Your task to perform on an android device: turn on sleep mode Image 0: 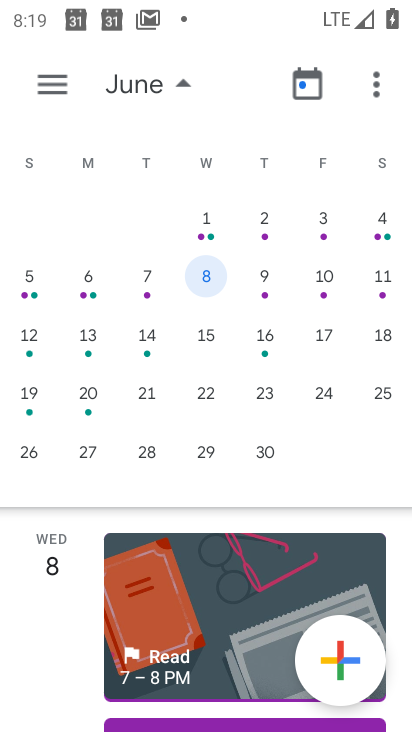
Step 0: press home button
Your task to perform on an android device: turn on sleep mode Image 1: 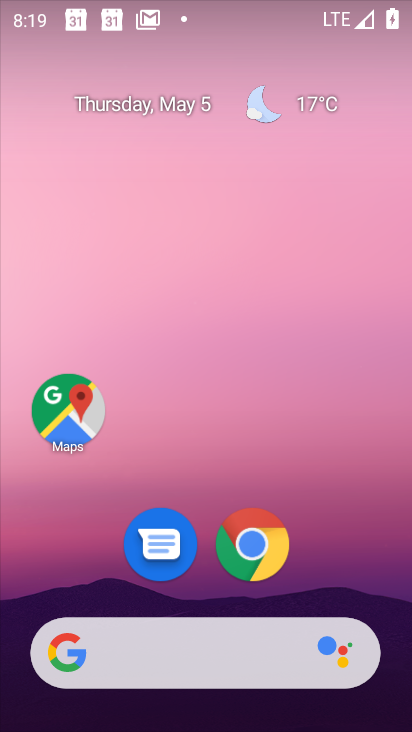
Step 1: drag from (348, 564) to (334, 195)
Your task to perform on an android device: turn on sleep mode Image 2: 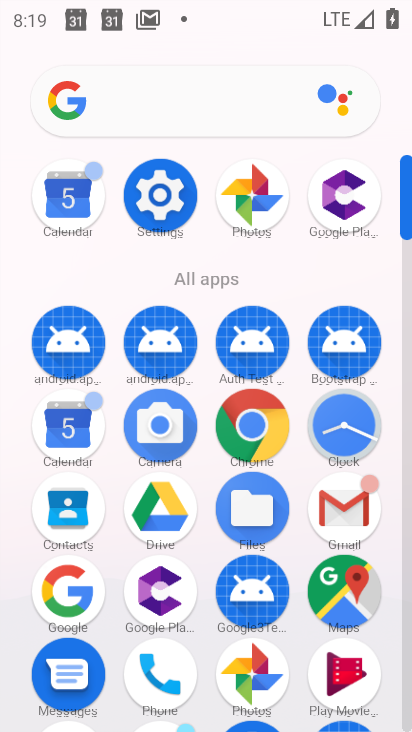
Step 2: click (141, 225)
Your task to perform on an android device: turn on sleep mode Image 3: 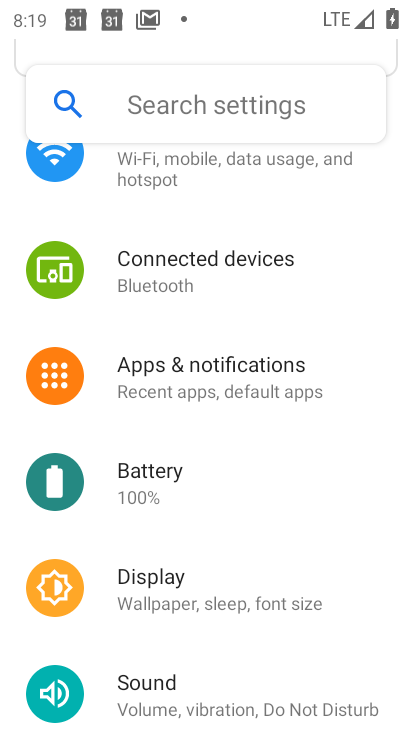
Step 3: click (186, 678)
Your task to perform on an android device: turn on sleep mode Image 4: 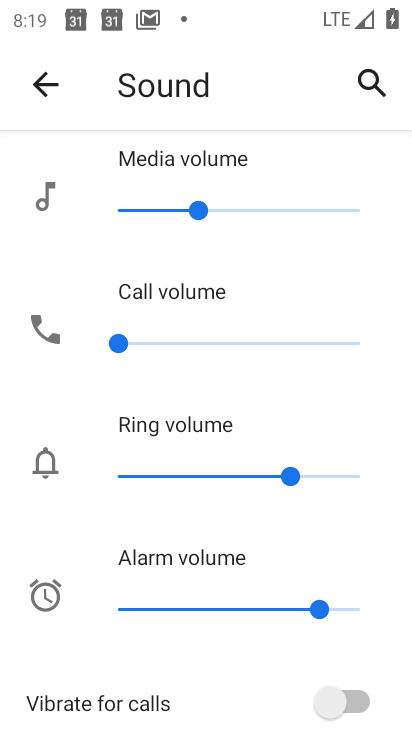
Step 4: drag from (196, 604) to (262, 214)
Your task to perform on an android device: turn on sleep mode Image 5: 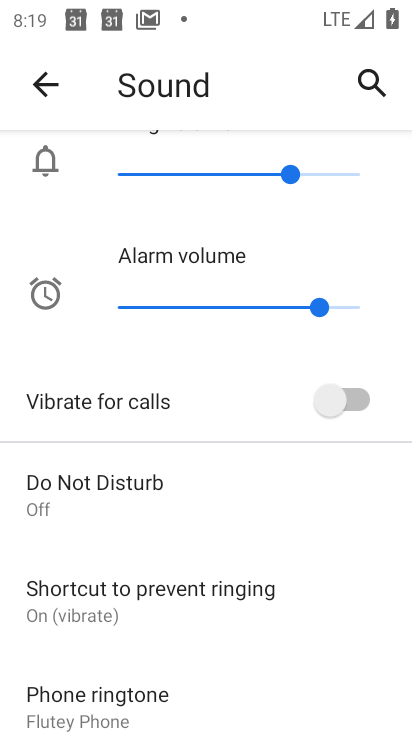
Step 5: drag from (150, 622) to (171, 393)
Your task to perform on an android device: turn on sleep mode Image 6: 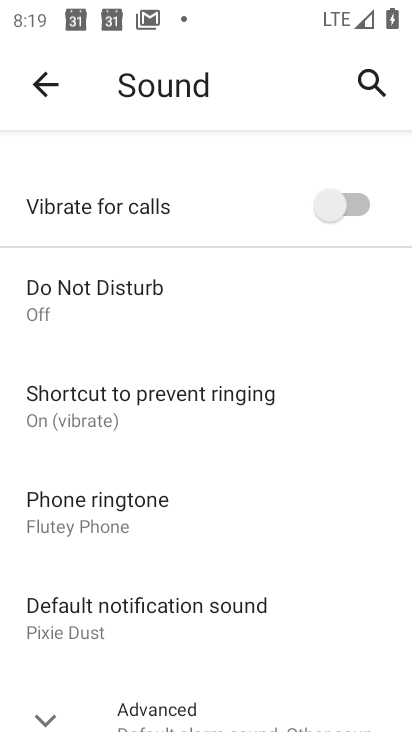
Step 6: drag from (157, 558) to (175, 439)
Your task to perform on an android device: turn on sleep mode Image 7: 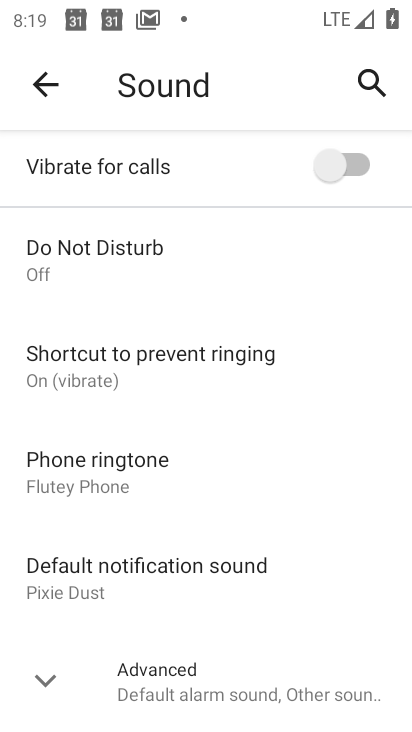
Step 7: click (91, 669)
Your task to perform on an android device: turn on sleep mode Image 8: 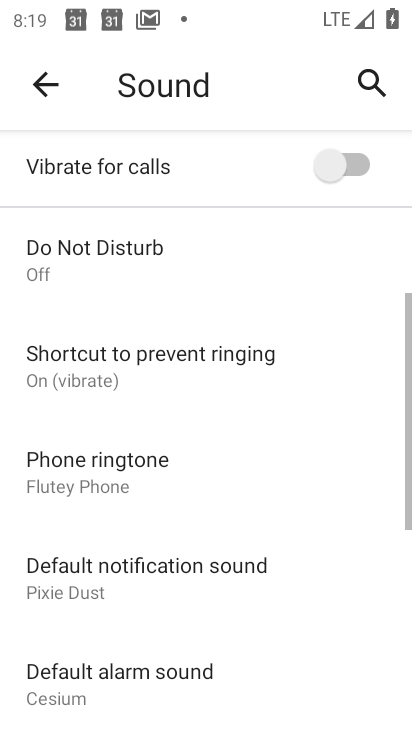
Step 8: drag from (131, 615) to (150, 499)
Your task to perform on an android device: turn on sleep mode Image 9: 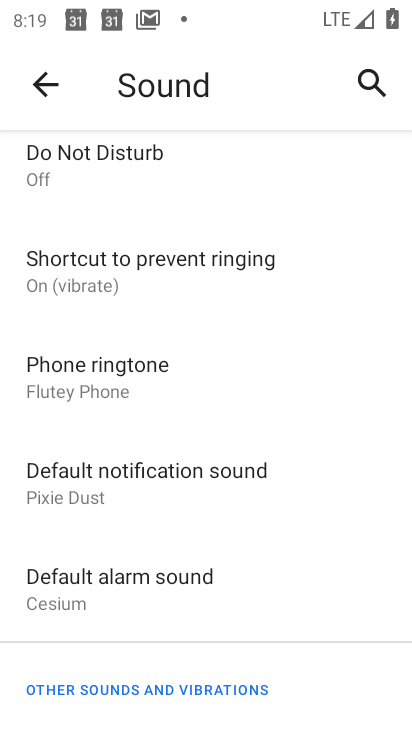
Step 9: click (43, 97)
Your task to perform on an android device: turn on sleep mode Image 10: 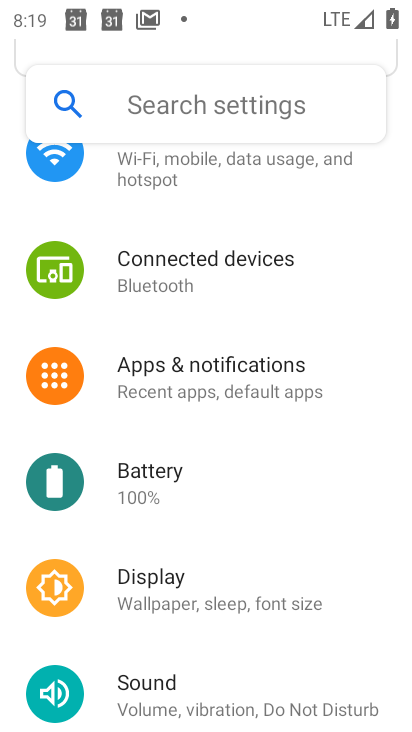
Step 10: click (163, 596)
Your task to perform on an android device: turn on sleep mode Image 11: 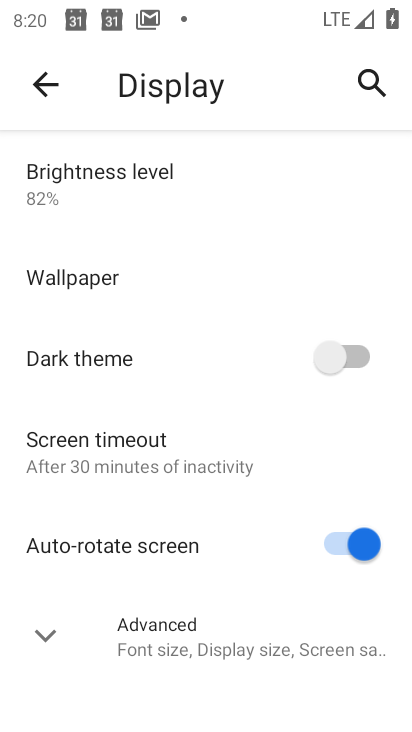
Step 11: click (138, 454)
Your task to perform on an android device: turn on sleep mode Image 12: 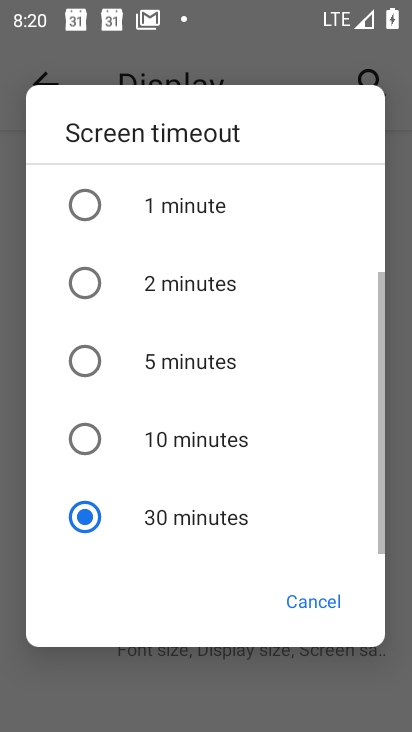
Step 12: drag from (146, 223) to (168, 555)
Your task to perform on an android device: turn on sleep mode Image 13: 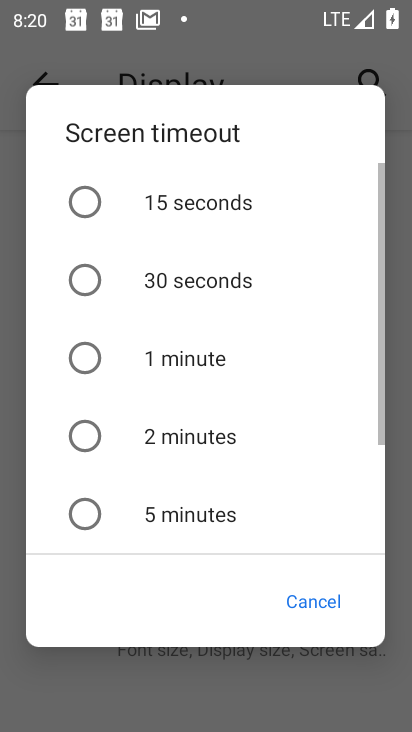
Step 13: click (170, 223)
Your task to perform on an android device: turn on sleep mode Image 14: 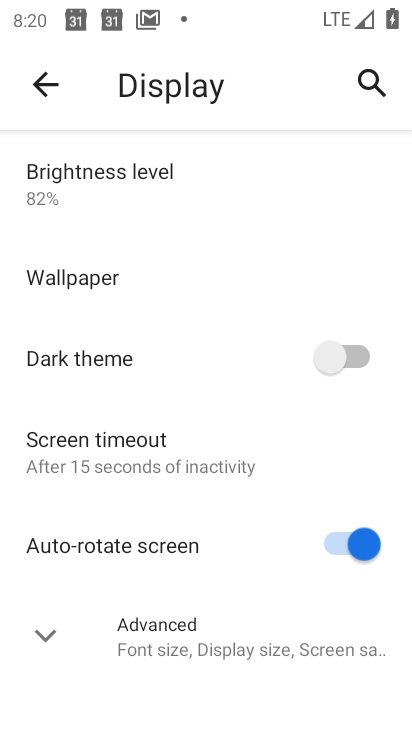
Step 14: task complete